Your task to perform on an android device: Check the news Image 0: 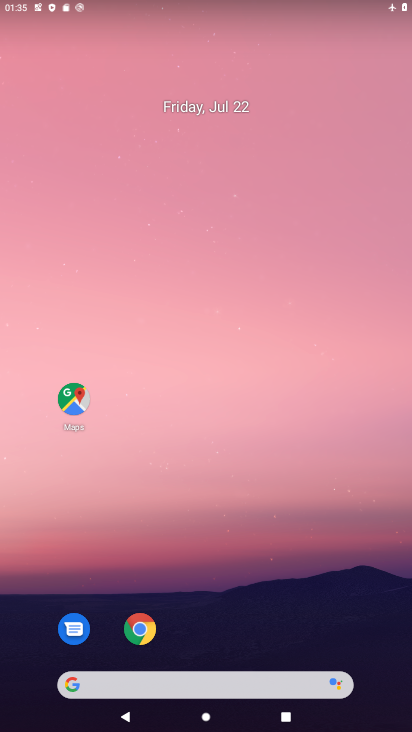
Step 0: click (251, 684)
Your task to perform on an android device: Check the news Image 1: 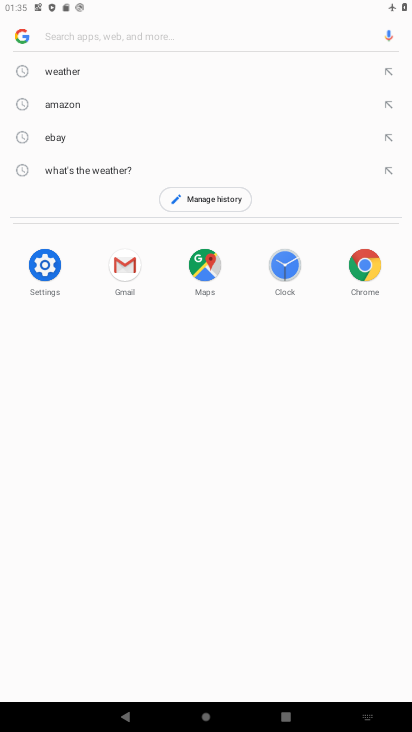
Step 1: click (99, 27)
Your task to perform on an android device: Check the news Image 2: 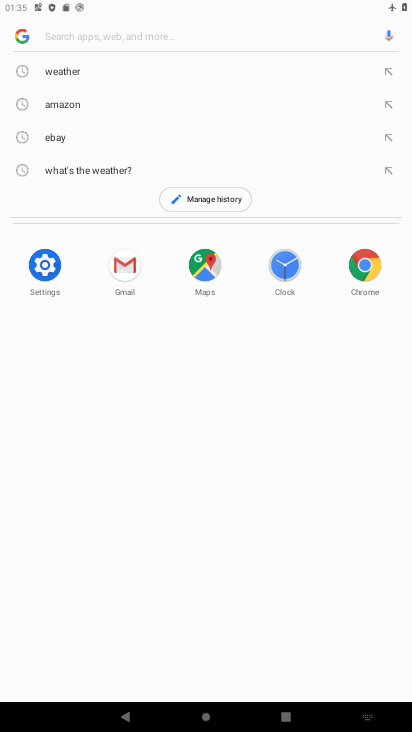
Step 2: type "news"
Your task to perform on an android device: Check the news Image 3: 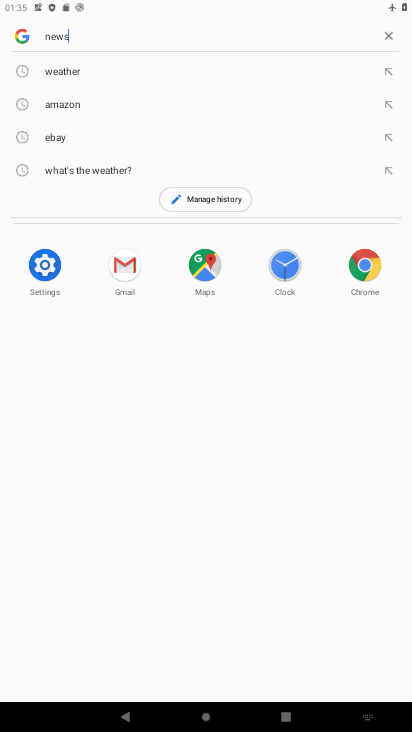
Step 3: type ""
Your task to perform on an android device: Check the news Image 4: 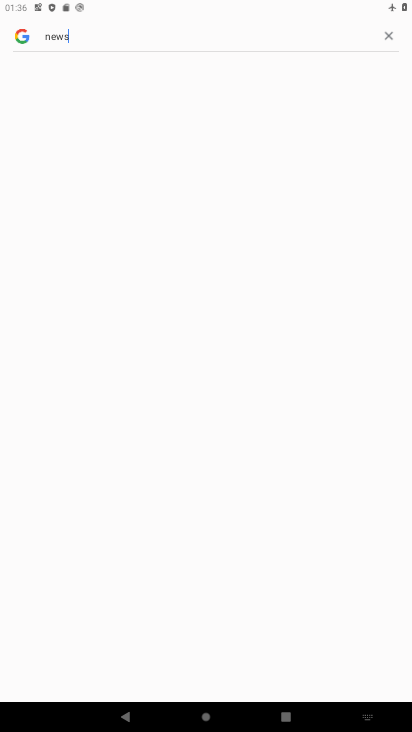
Step 4: task complete